Your task to perform on an android device: See recent photos Image 0: 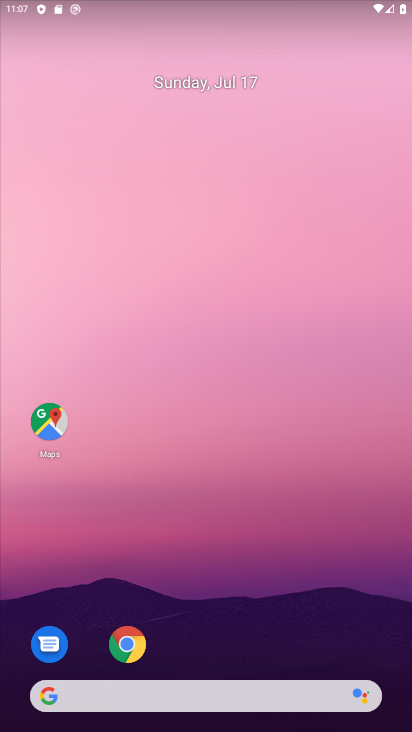
Step 0: drag from (252, 490) to (274, 30)
Your task to perform on an android device: See recent photos Image 1: 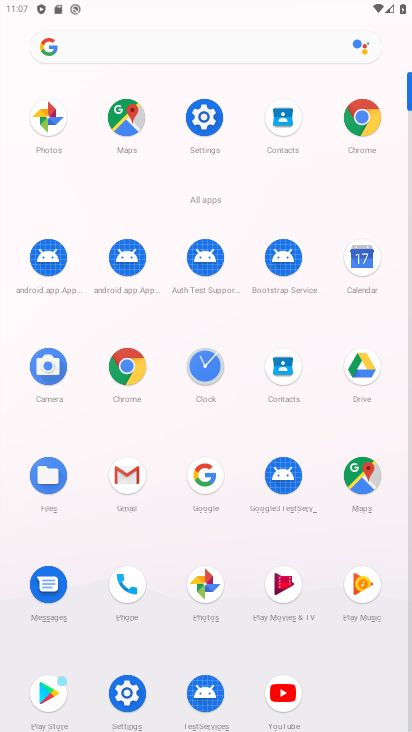
Step 1: click (213, 584)
Your task to perform on an android device: See recent photos Image 2: 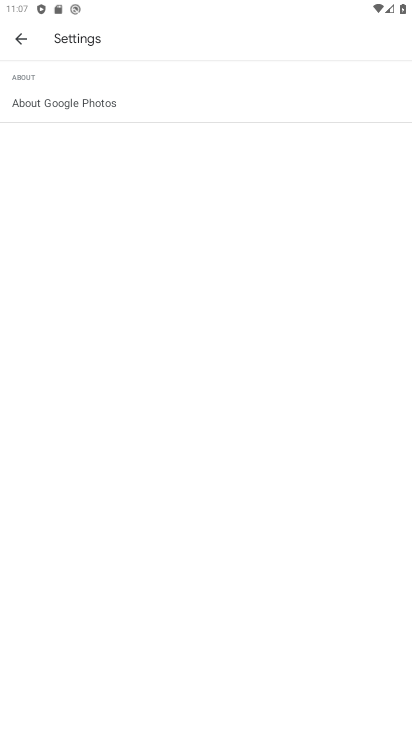
Step 2: click (28, 42)
Your task to perform on an android device: See recent photos Image 3: 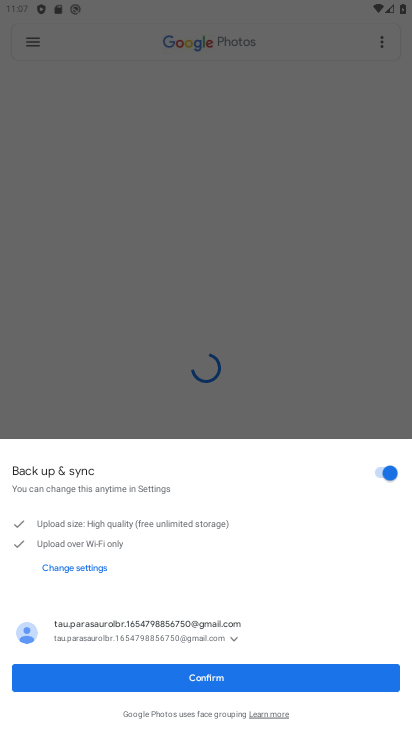
Step 3: click (222, 683)
Your task to perform on an android device: See recent photos Image 4: 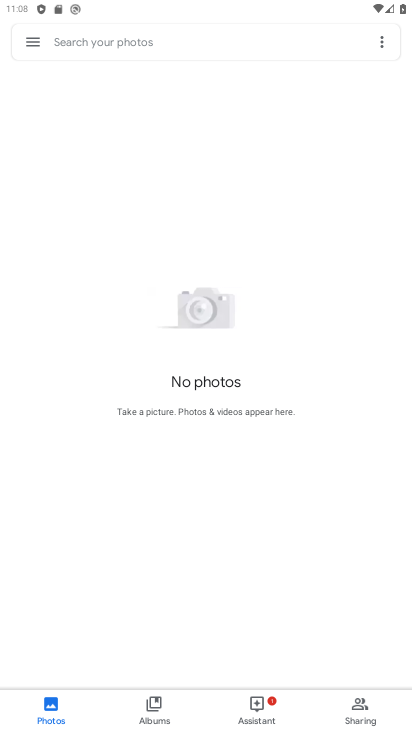
Step 4: task complete